Your task to perform on an android device: add a contact Image 0: 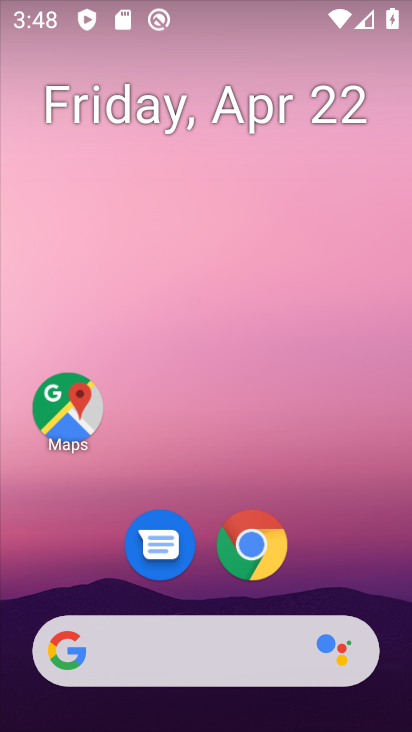
Step 0: drag from (228, 583) to (215, 310)
Your task to perform on an android device: add a contact Image 1: 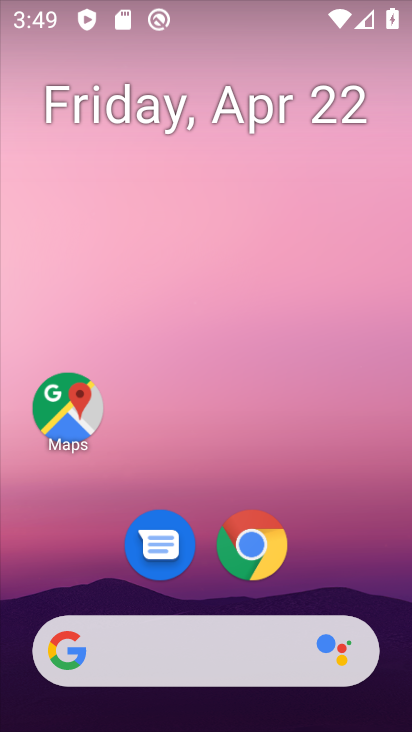
Step 1: drag from (209, 590) to (176, 277)
Your task to perform on an android device: add a contact Image 2: 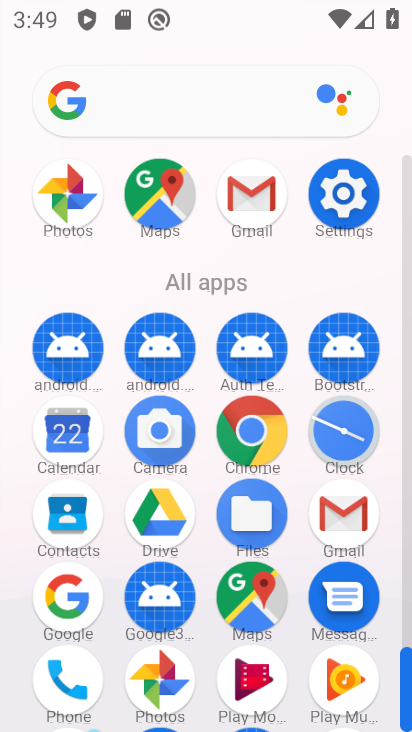
Step 2: click (87, 527)
Your task to perform on an android device: add a contact Image 3: 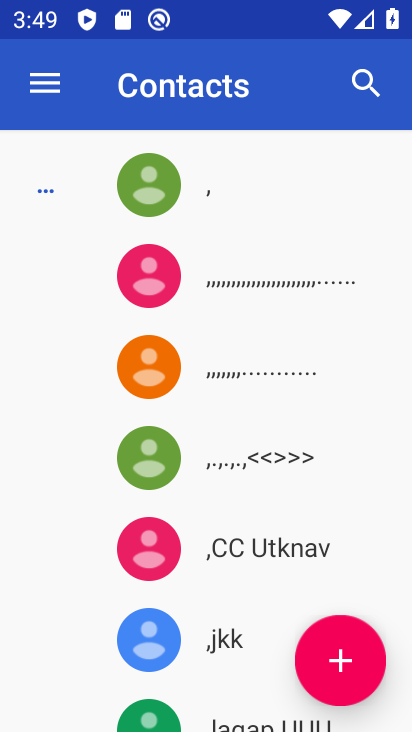
Step 3: click (332, 683)
Your task to perform on an android device: add a contact Image 4: 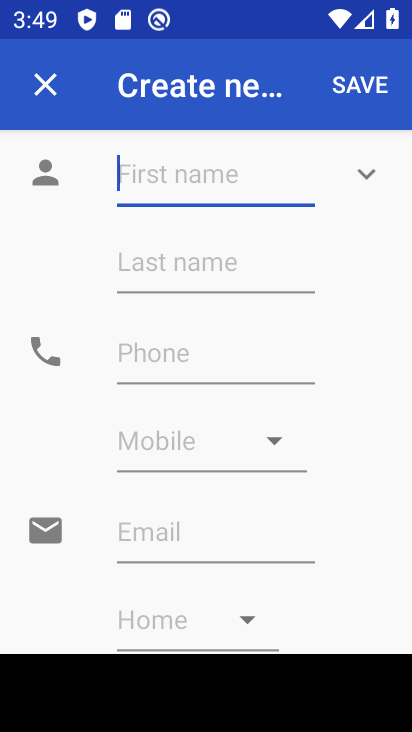
Step 4: click (177, 194)
Your task to perform on an android device: add a contact Image 5: 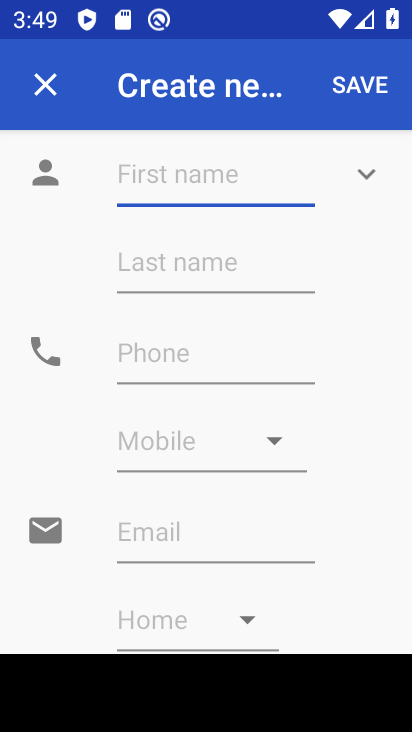
Step 5: type "add a co"
Your task to perform on an android device: add a contact Image 6: 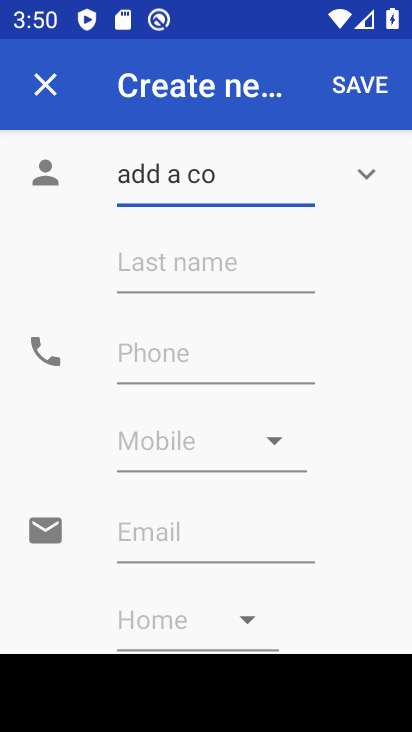
Step 6: click (364, 87)
Your task to perform on an android device: add a contact Image 7: 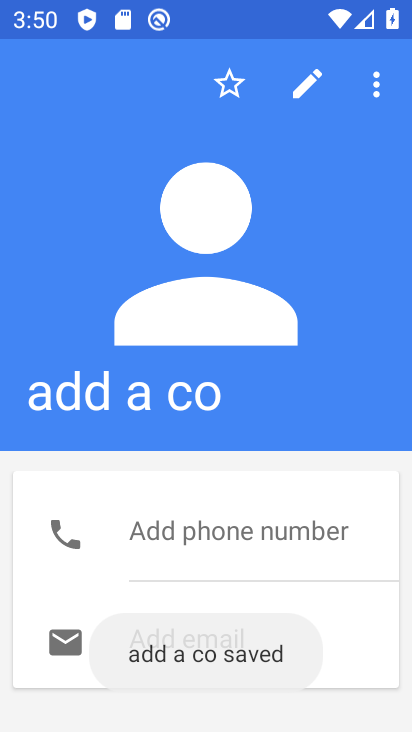
Step 7: task complete